Your task to perform on an android device: turn on location history Image 0: 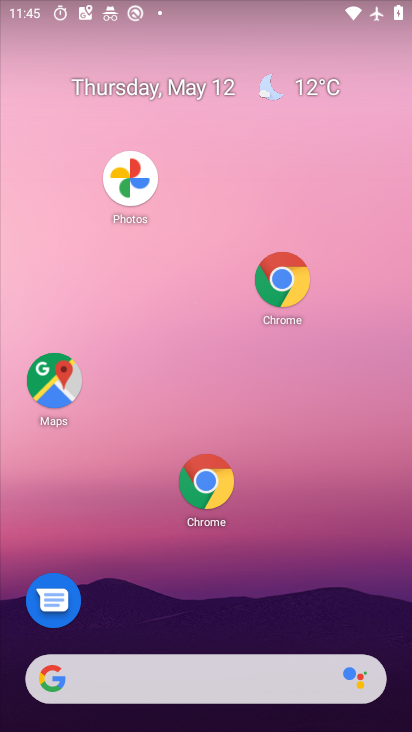
Step 0: drag from (372, 595) to (264, 201)
Your task to perform on an android device: turn on location history Image 1: 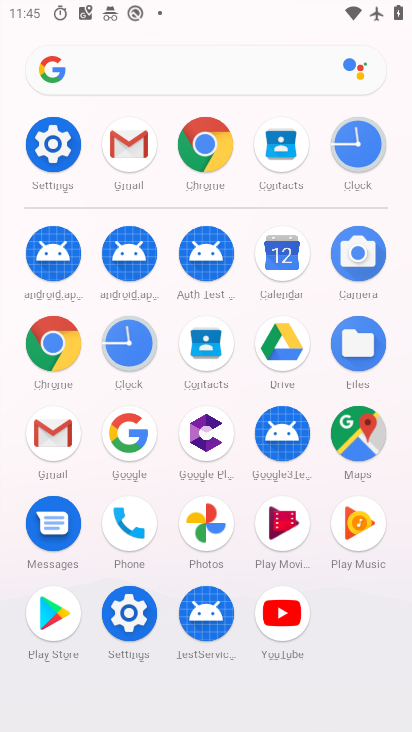
Step 1: click (354, 442)
Your task to perform on an android device: turn on location history Image 2: 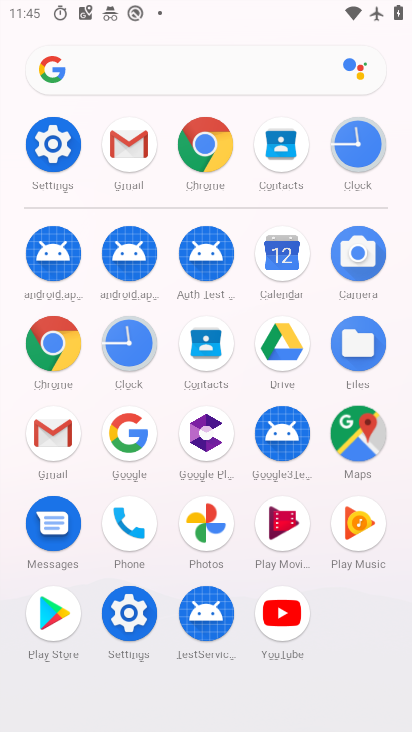
Step 2: click (354, 442)
Your task to perform on an android device: turn on location history Image 3: 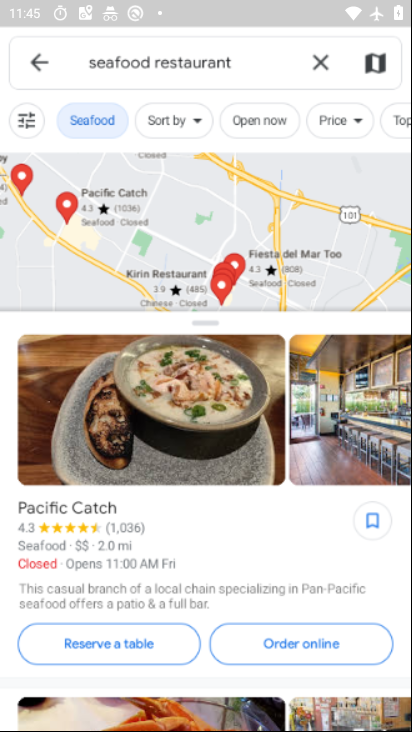
Step 3: click (354, 442)
Your task to perform on an android device: turn on location history Image 4: 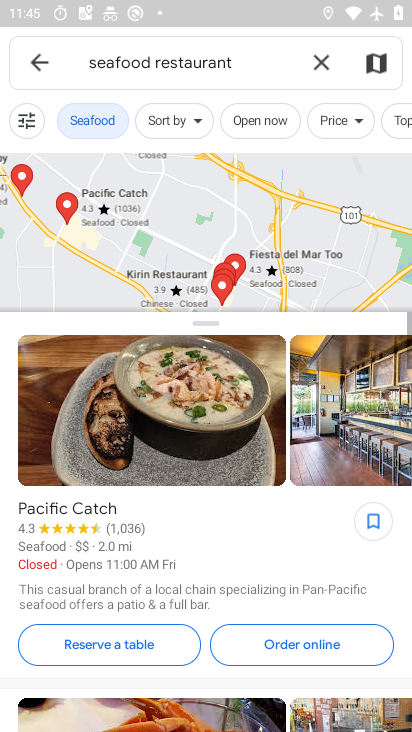
Step 4: click (325, 62)
Your task to perform on an android device: turn on location history Image 5: 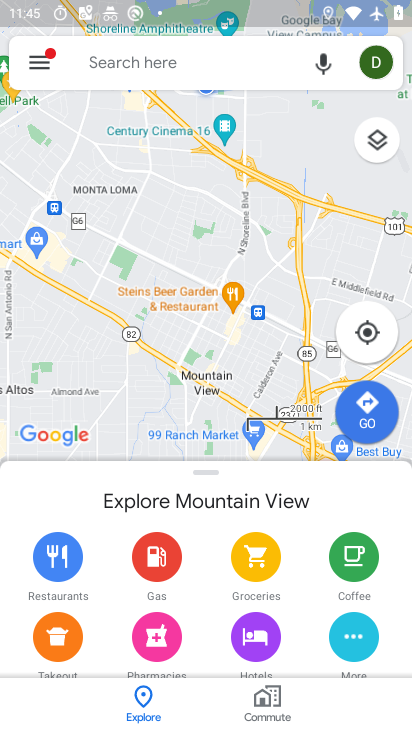
Step 5: click (87, 54)
Your task to perform on an android device: turn on location history Image 6: 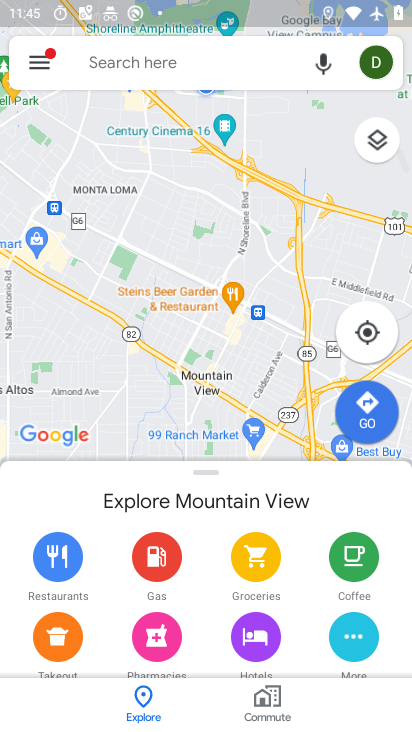
Step 6: click (37, 69)
Your task to perform on an android device: turn on location history Image 7: 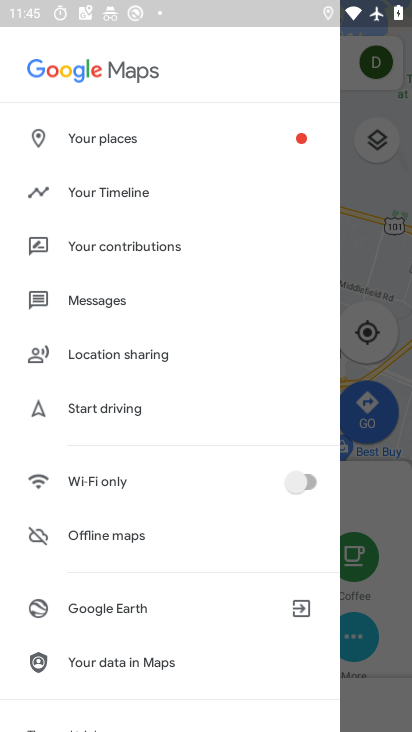
Step 7: drag from (159, 500) to (136, 90)
Your task to perform on an android device: turn on location history Image 8: 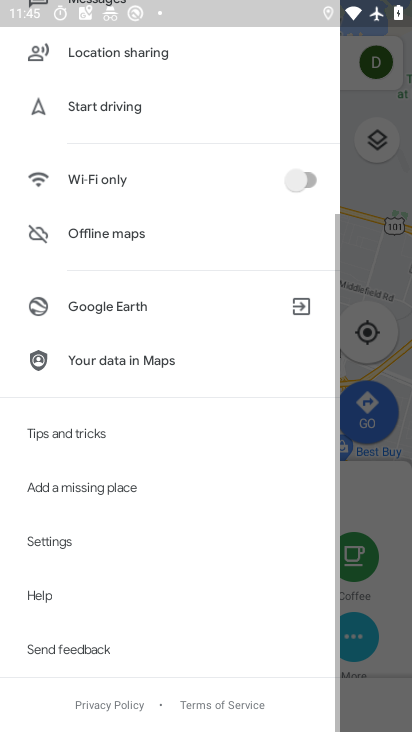
Step 8: drag from (225, 399) to (181, 6)
Your task to perform on an android device: turn on location history Image 9: 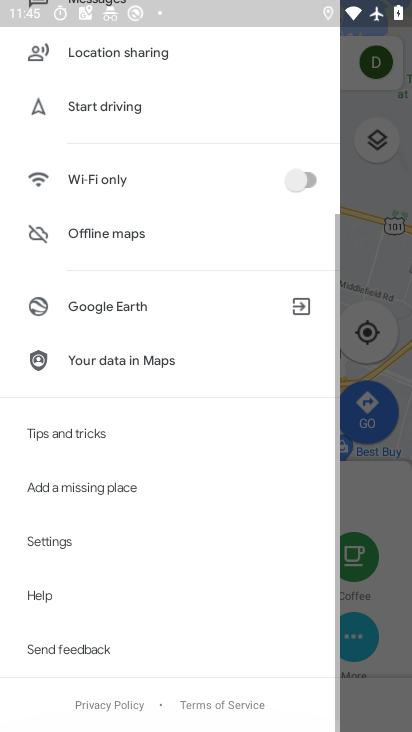
Step 9: drag from (119, 185) to (210, 543)
Your task to perform on an android device: turn on location history Image 10: 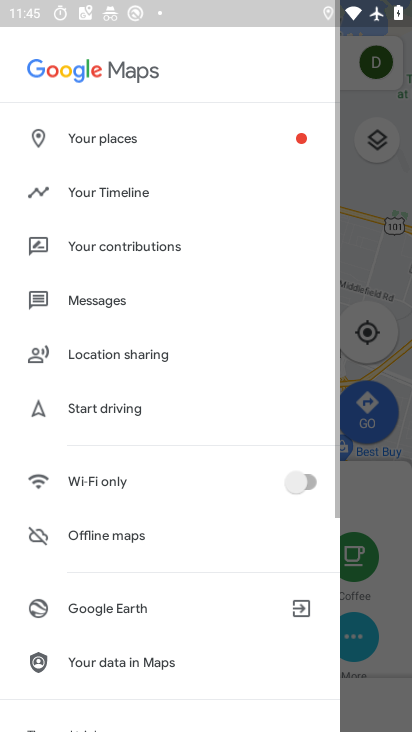
Step 10: drag from (110, 216) to (144, 349)
Your task to perform on an android device: turn on location history Image 11: 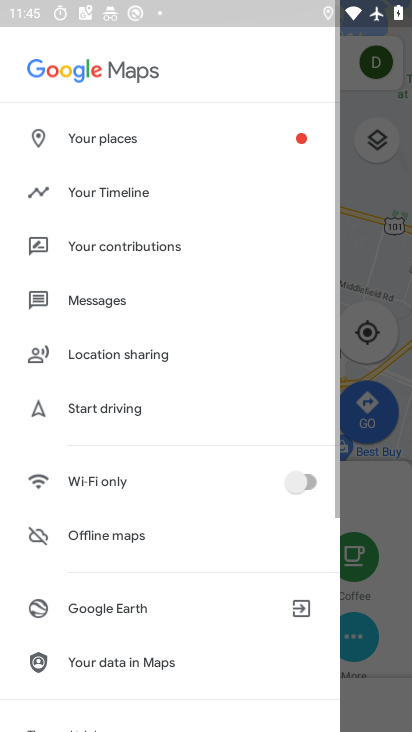
Step 11: drag from (57, 196) to (118, 462)
Your task to perform on an android device: turn on location history Image 12: 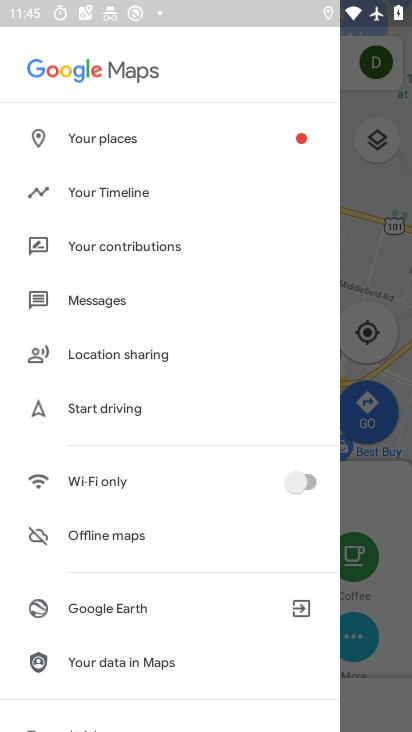
Step 12: click (107, 191)
Your task to perform on an android device: turn on location history Image 13: 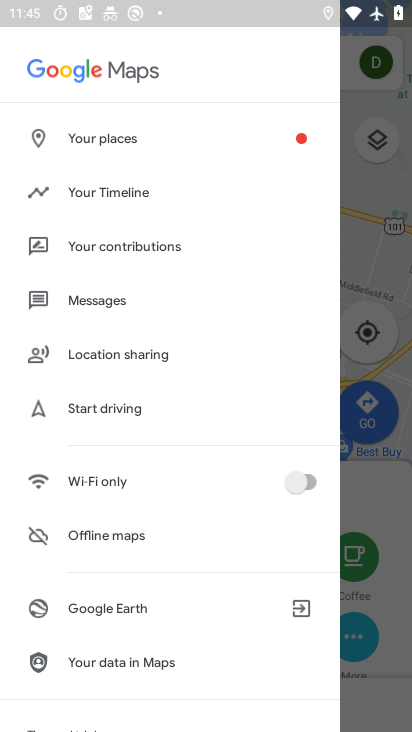
Step 13: click (107, 191)
Your task to perform on an android device: turn on location history Image 14: 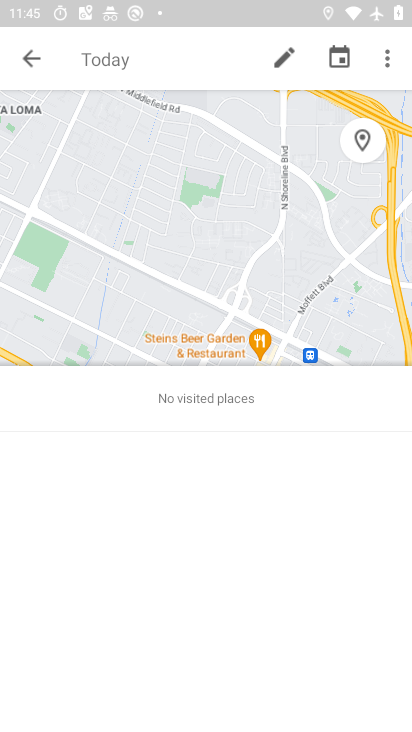
Step 14: click (380, 63)
Your task to perform on an android device: turn on location history Image 15: 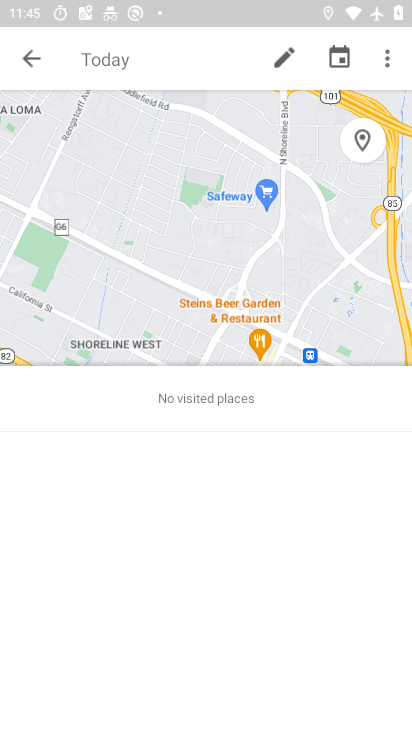
Step 15: click (389, 52)
Your task to perform on an android device: turn on location history Image 16: 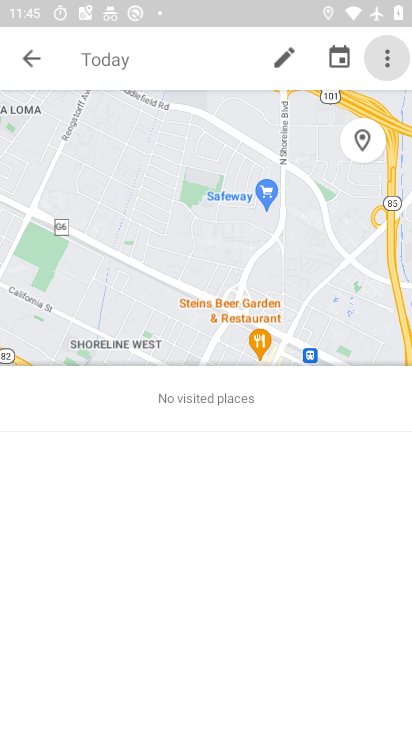
Step 16: click (389, 52)
Your task to perform on an android device: turn on location history Image 17: 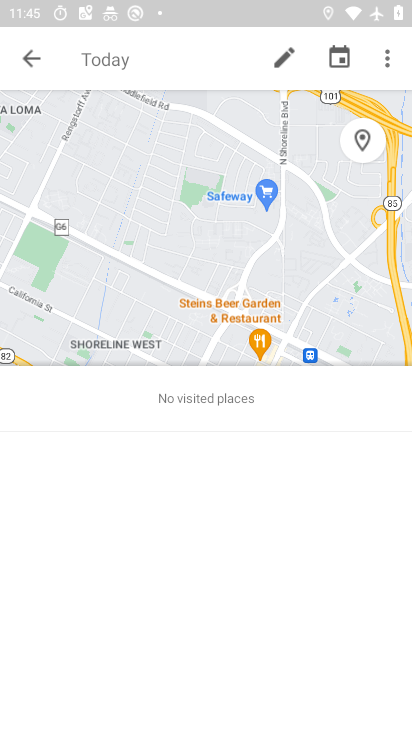
Step 17: click (382, 61)
Your task to perform on an android device: turn on location history Image 18: 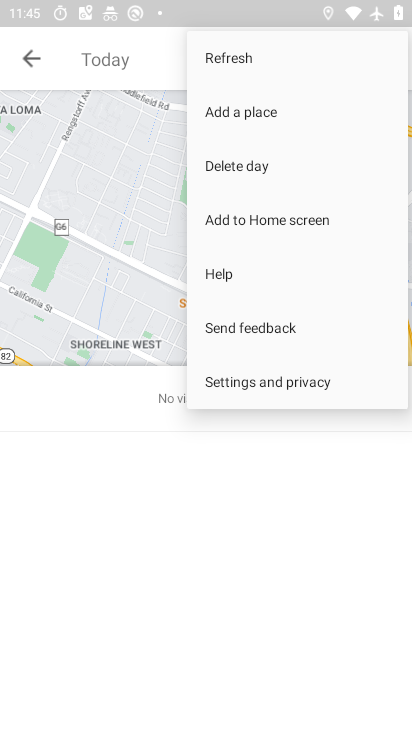
Step 18: click (266, 384)
Your task to perform on an android device: turn on location history Image 19: 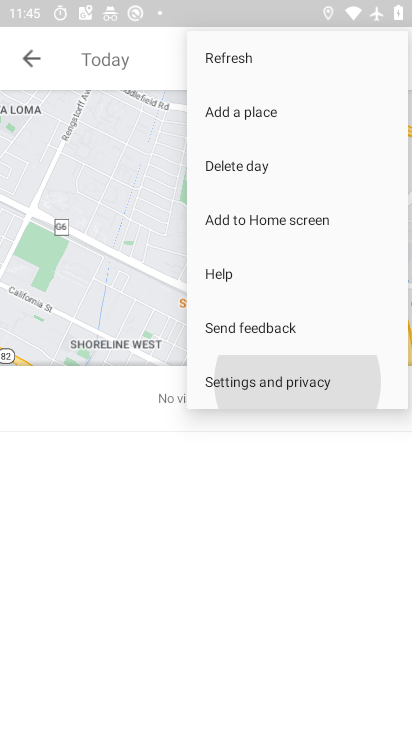
Step 19: click (266, 384)
Your task to perform on an android device: turn on location history Image 20: 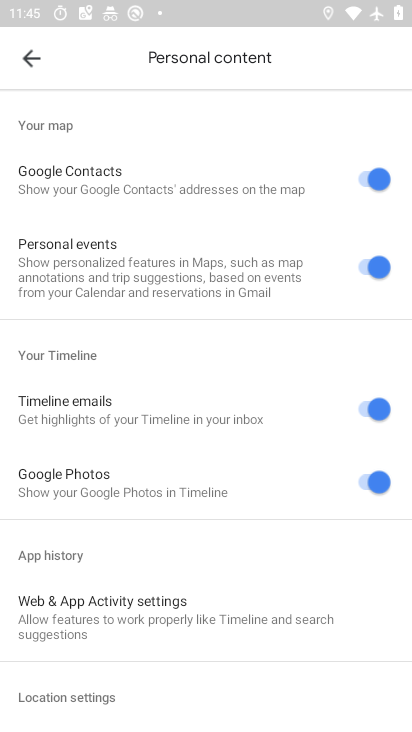
Step 20: drag from (188, 503) to (119, 52)
Your task to perform on an android device: turn on location history Image 21: 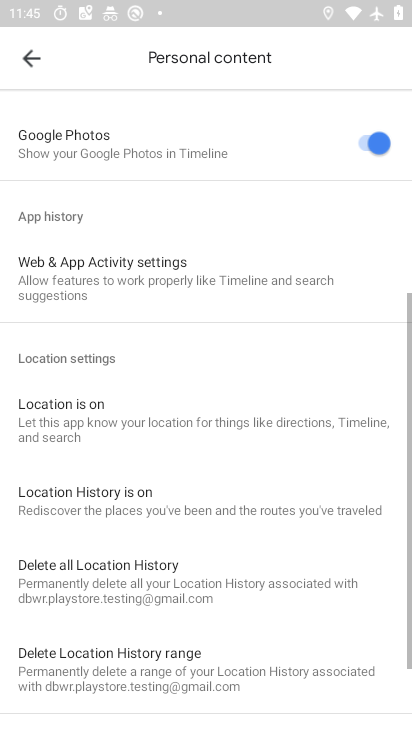
Step 21: drag from (173, 523) to (224, 97)
Your task to perform on an android device: turn on location history Image 22: 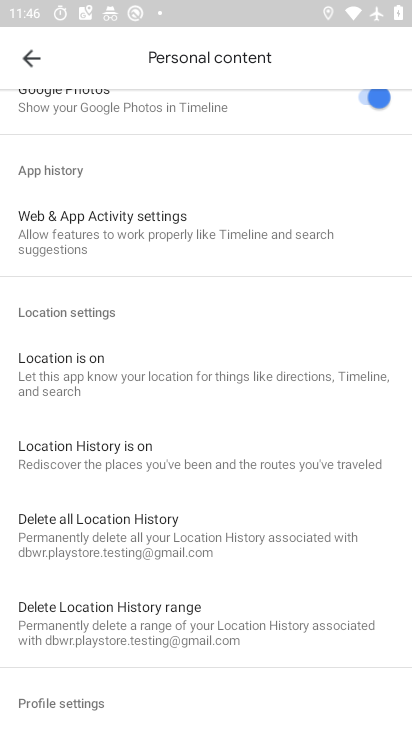
Step 22: click (92, 450)
Your task to perform on an android device: turn on location history Image 23: 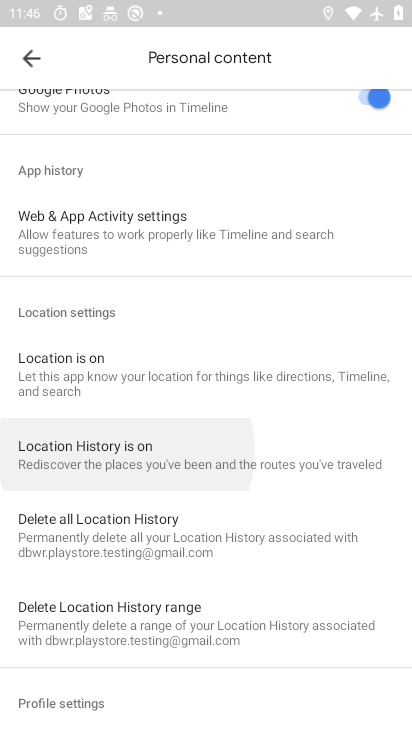
Step 23: click (92, 450)
Your task to perform on an android device: turn on location history Image 24: 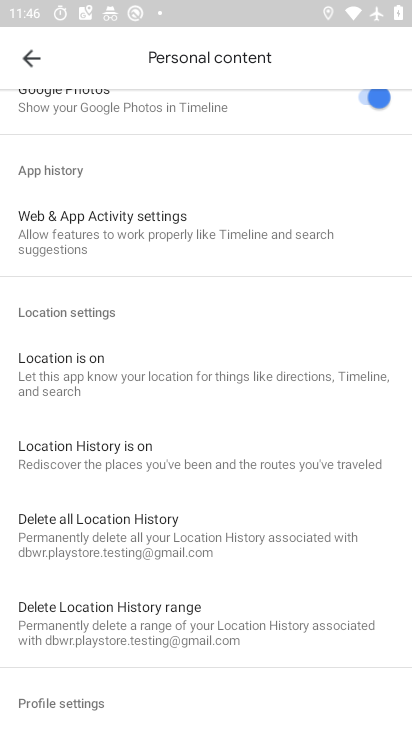
Step 24: click (91, 450)
Your task to perform on an android device: turn on location history Image 25: 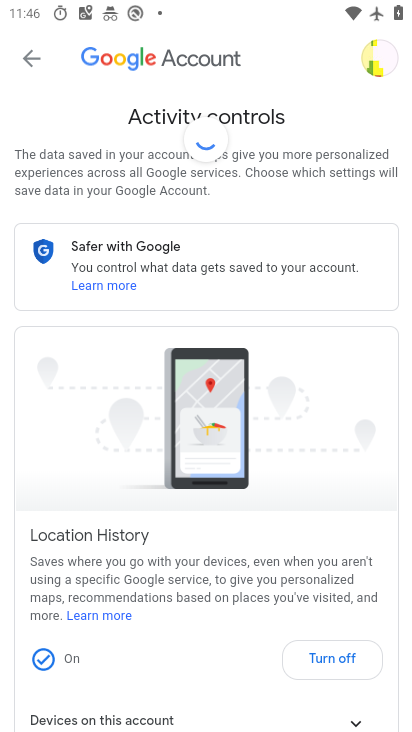
Step 25: drag from (315, 539) to (249, 63)
Your task to perform on an android device: turn on location history Image 26: 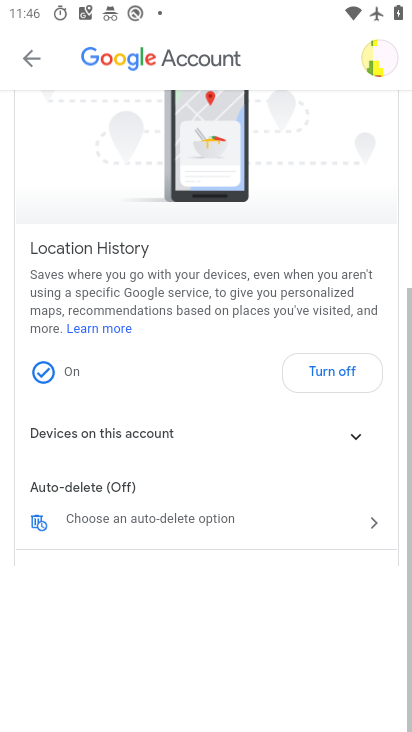
Step 26: drag from (239, 424) to (262, 112)
Your task to perform on an android device: turn on location history Image 27: 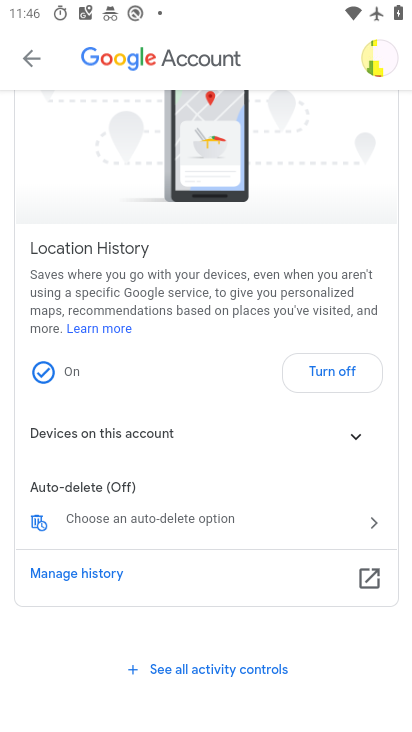
Step 27: click (332, 374)
Your task to perform on an android device: turn on location history Image 28: 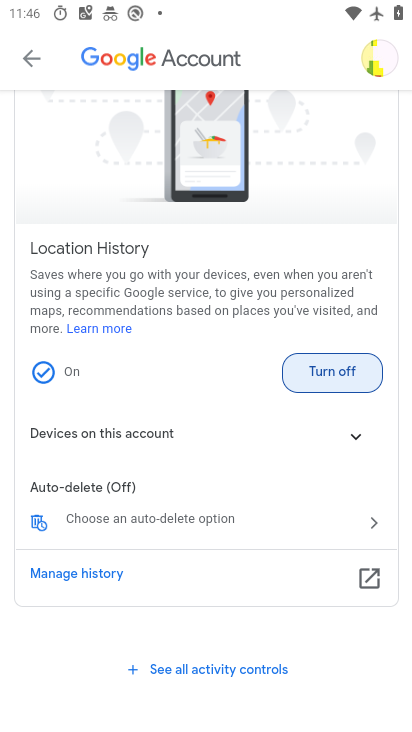
Step 28: click (335, 358)
Your task to perform on an android device: turn on location history Image 29: 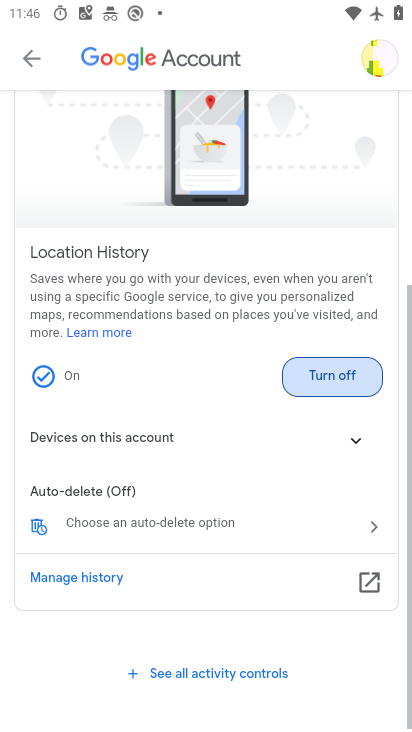
Step 29: click (335, 371)
Your task to perform on an android device: turn on location history Image 30: 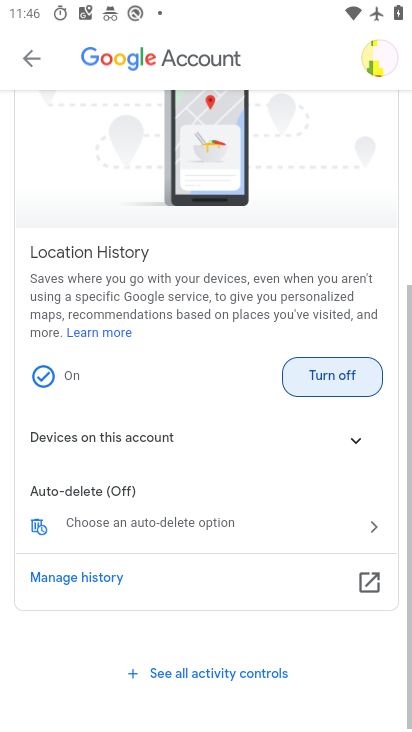
Step 30: click (335, 371)
Your task to perform on an android device: turn on location history Image 31: 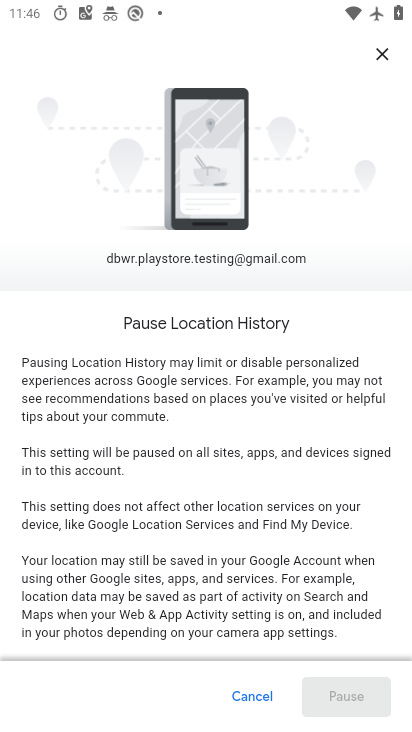
Step 31: task complete